Your task to perform on an android device: Open Google Maps Image 0: 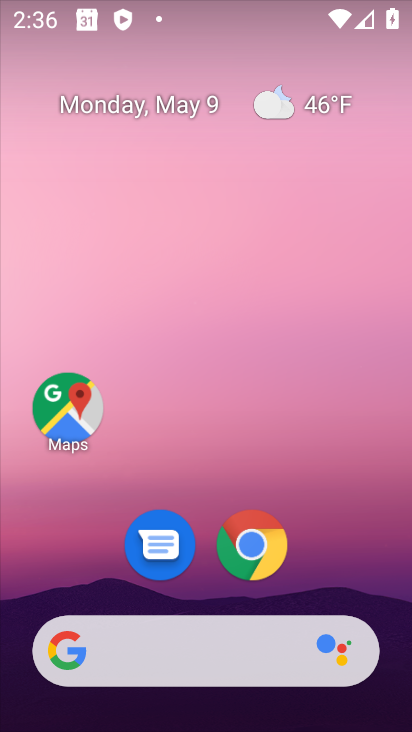
Step 0: click (87, 402)
Your task to perform on an android device: Open Google Maps Image 1: 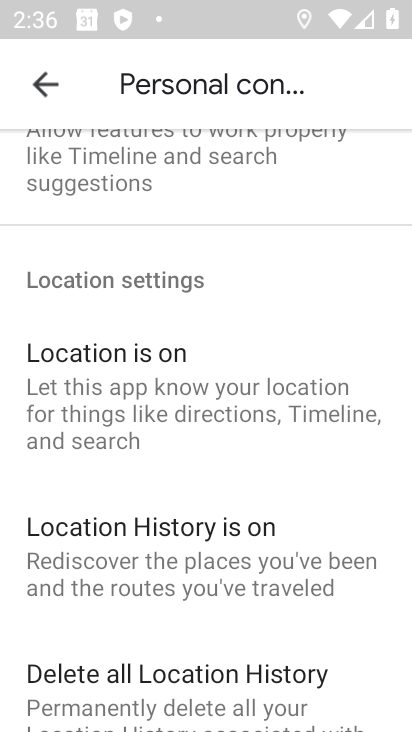
Step 1: click (49, 94)
Your task to perform on an android device: Open Google Maps Image 2: 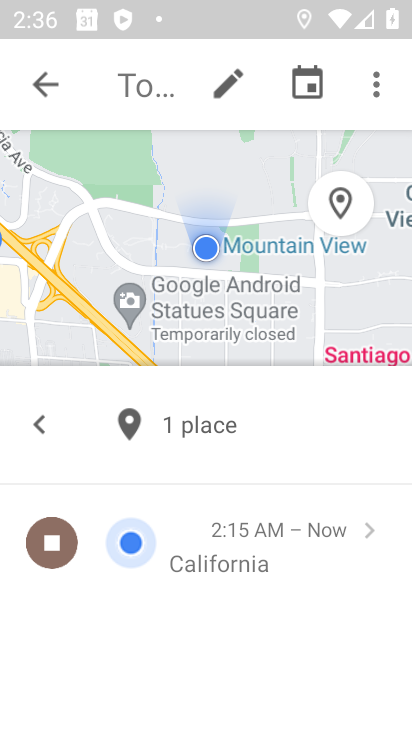
Step 2: click (53, 81)
Your task to perform on an android device: Open Google Maps Image 3: 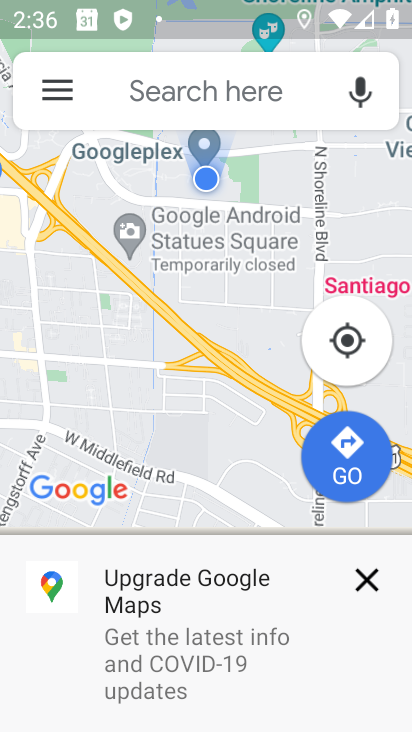
Step 3: task complete